Your task to perform on an android device: check out phone information Image 0: 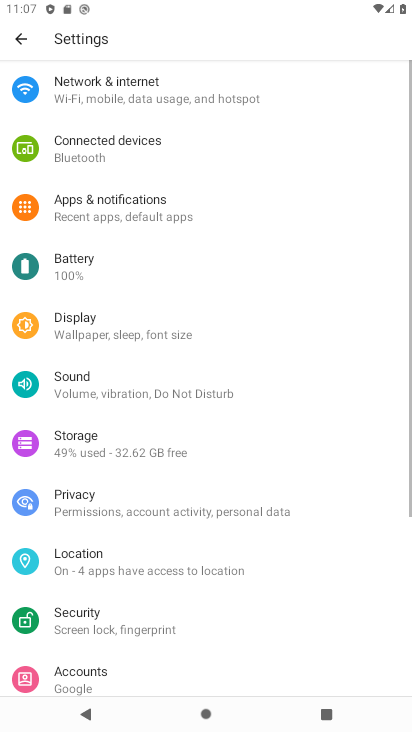
Step 0: press home button
Your task to perform on an android device: check out phone information Image 1: 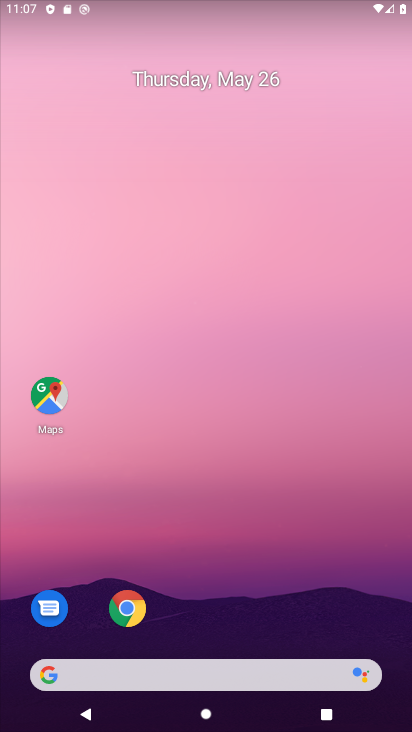
Step 1: drag from (316, 480) to (297, 56)
Your task to perform on an android device: check out phone information Image 2: 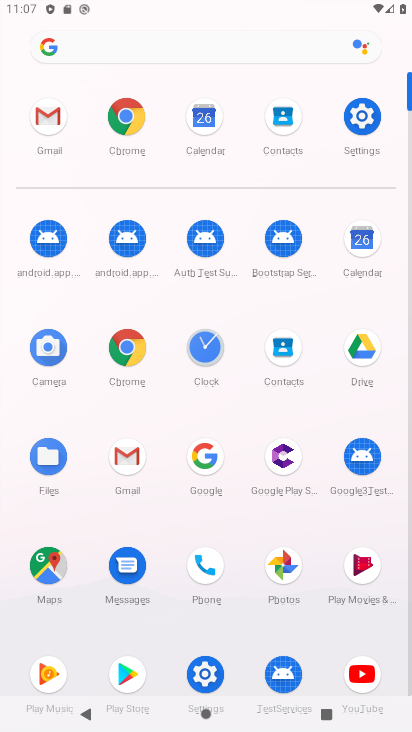
Step 2: click (203, 555)
Your task to perform on an android device: check out phone information Image 3: 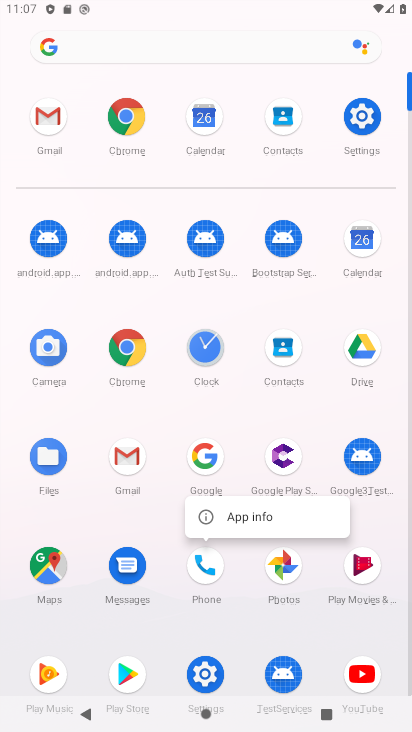
Step 3: click (238, 500)
Your task to perform on an android device: check out phone information Image 4: 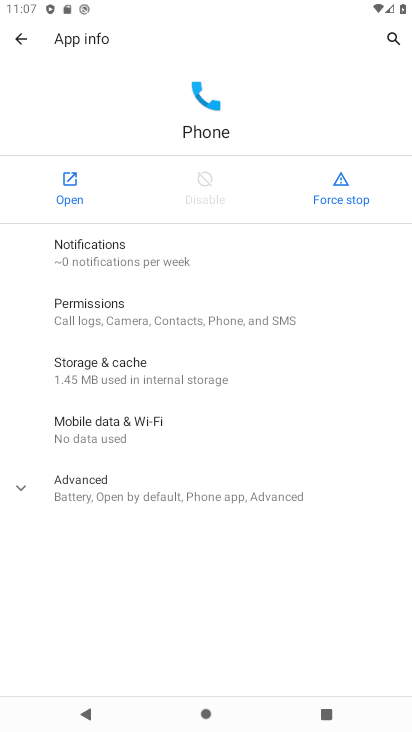
Step 4: task complete